Your task to perform on an android device: check storage Image 0: 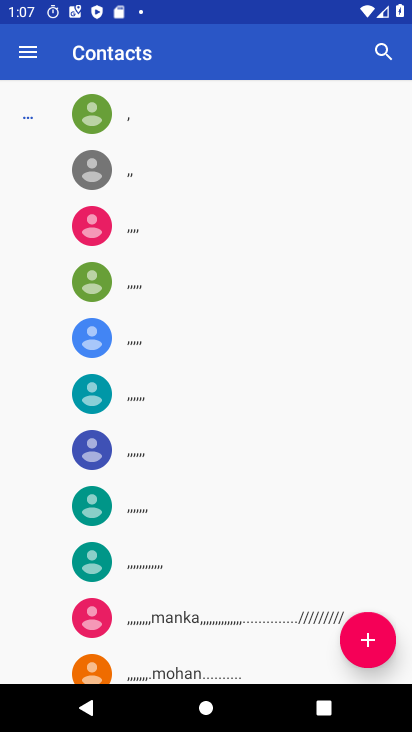
Step 0: press home button
Your task to perform on an android device: check storage Image 1: 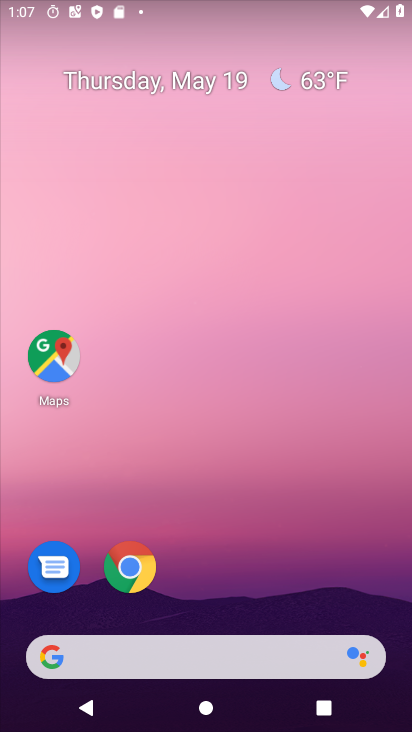
Step 1: drag from (203, 661) to (294, 210)
Your task to perform on an android device: check storage Image 2: 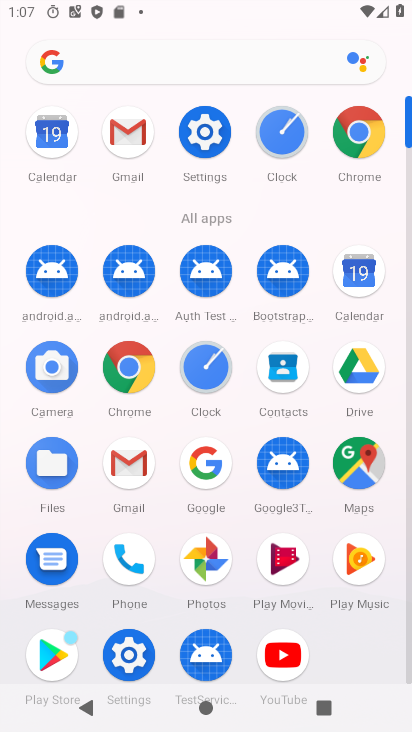
Step 2: click (208, 140)
Your task to perform on an android device: check storage Image 3: 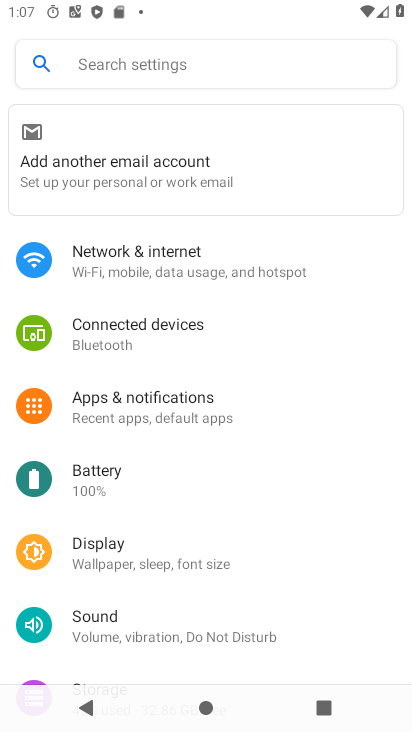
Step 3: drag from (195, 581) to (255, 345)
Your task to perform on an android device: check storage Image 4: 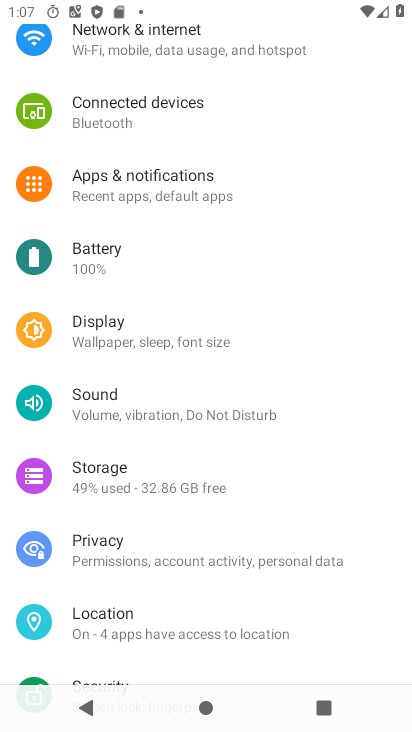
Step 4: click (118, 473)
Your task to perform on an android device: check storage Image 5: 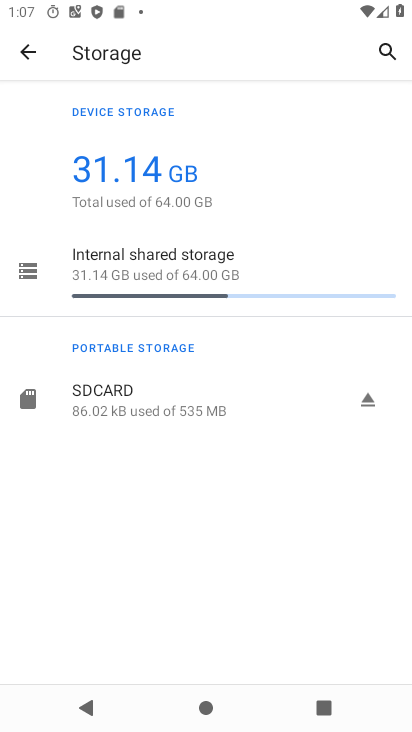
Step 5: task complete